Your task to perform on an android device: Search for Mexican restaurants on Maps Image 0: 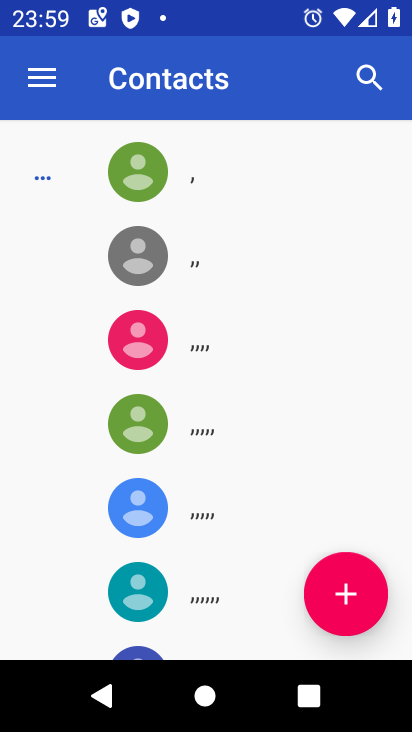
Step 0: press home button
Your task to perform on an android device: Search for Mexican restaurants on Maps Image 1: 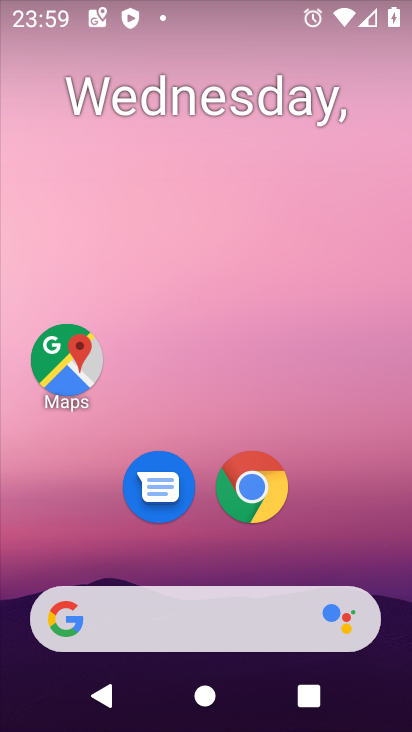
Step 1: click (71, 369)
Your task to perform on an android device: Search for Mexican restaurants on Maps Image 2: 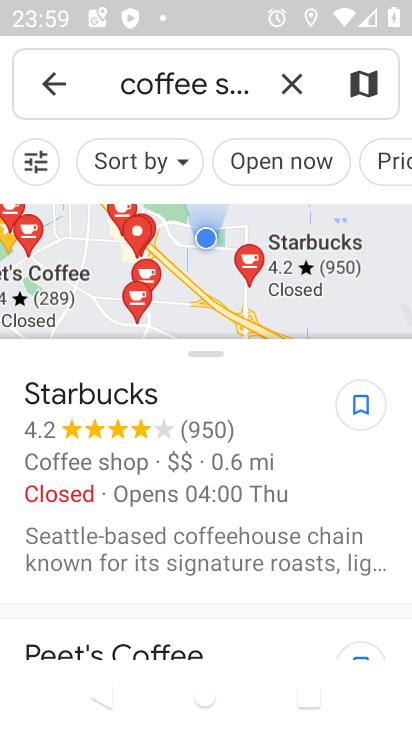
Step 2: click (295, 88)
Your task to perform on an android device: Search for Mexican restaurants on Maps Image 3: 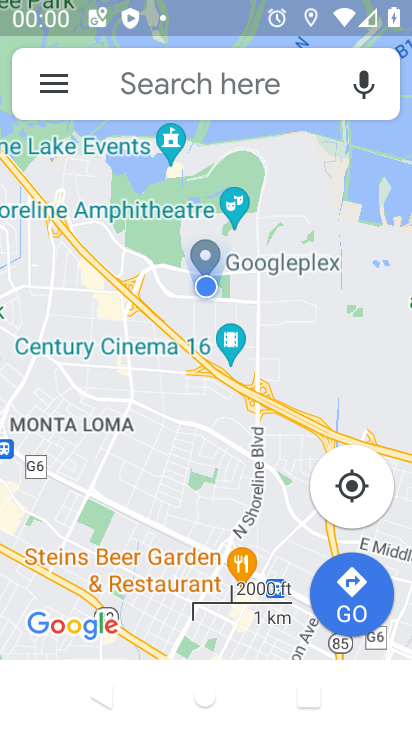
Step 3: click (137, 88)
Your task to perform on an android device: Search for Mexican restaurants on Maps Image 4: 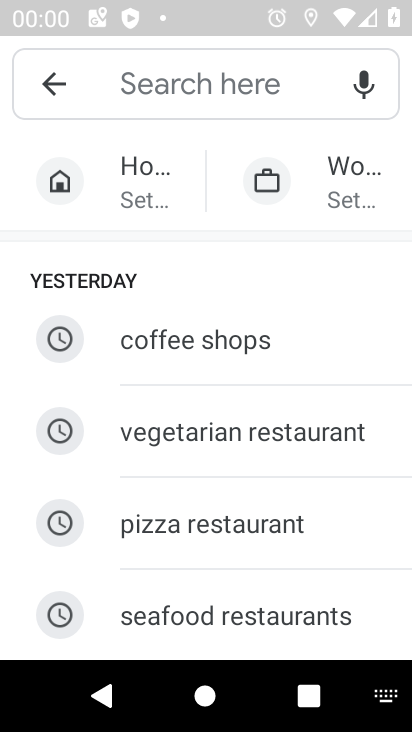
Step 4: type "mexican restaurant "
Your task to perform on an android device: Search for Mexican restaurants on Maps Image 5: 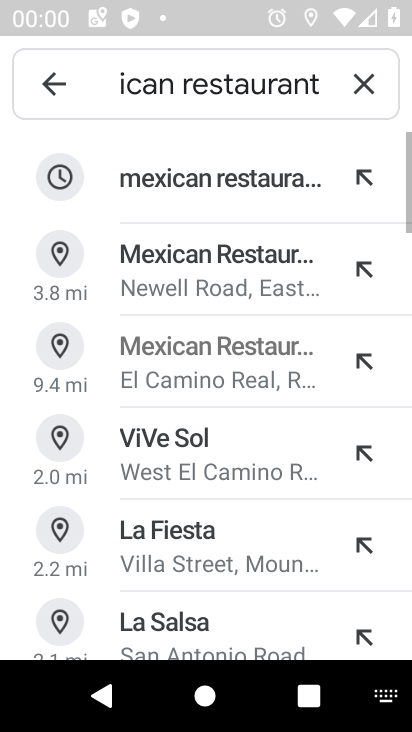
Step 5: click (173, 183)
Your task to perform on an android device: Search for Mexican restaurants on Maps Image 6: 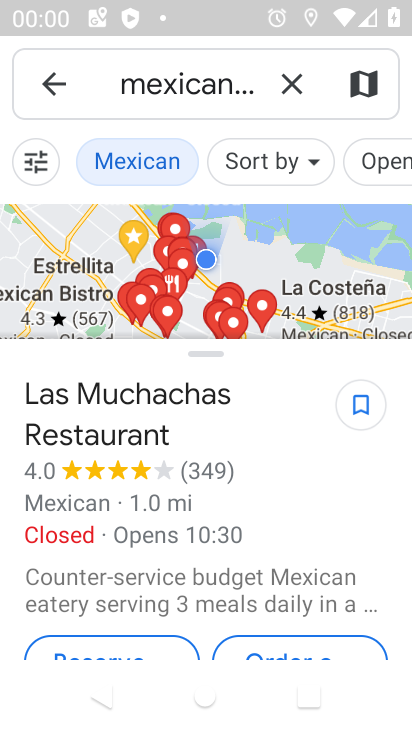
Step 6: task complete